Your task to perform on an android device: Open Google Image 0: 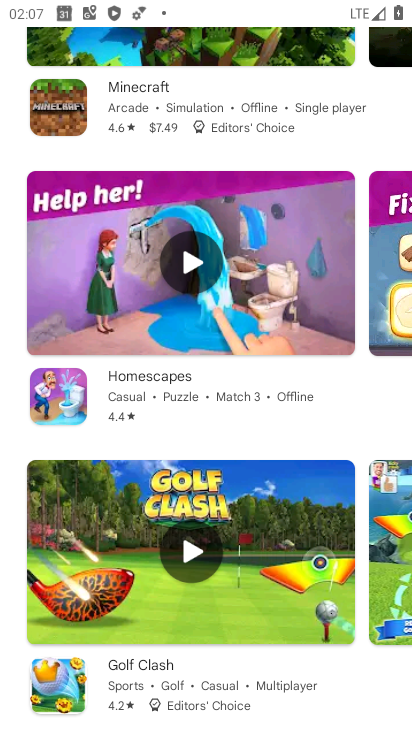
Step 0: press home button
Your task to perform on an android device: Open Google Image 1: 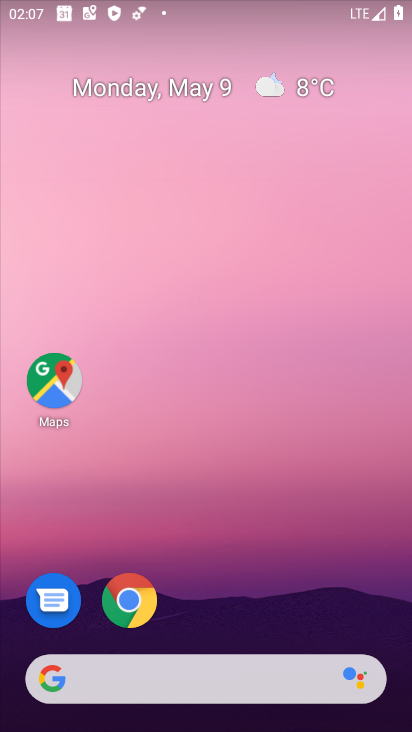
Step 1: drag from (210, 578) to (241, 21)
Your task to perform on an android device: Open Google Image 2: 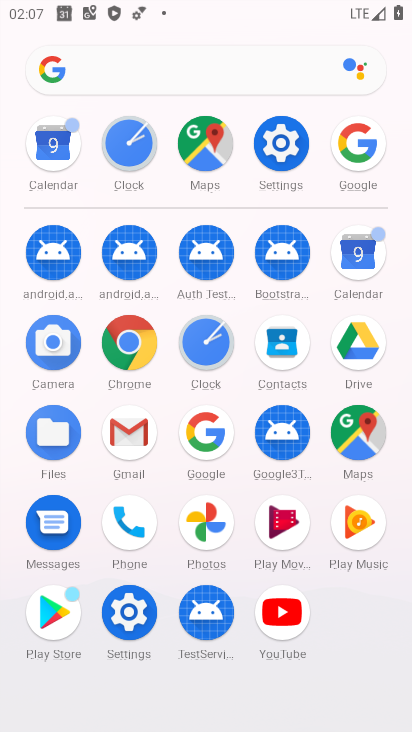
Step 2: click (211, 447)
Your task to perform on an android device: Open Google Image 3: 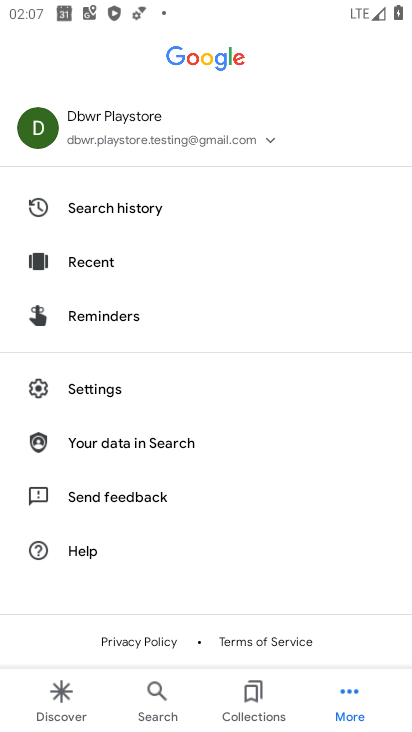
Step 3: click (61, 689)
Your task to perform on an android device: Open Google Image 4: 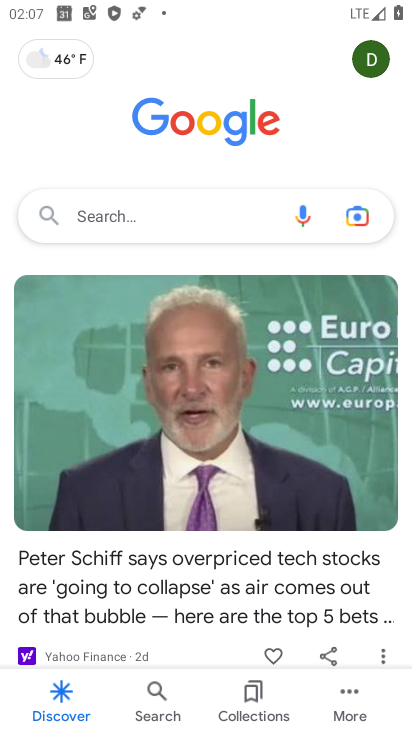
Step 4: task complete